Your task to perform on an android device: turn pop-ups on in chrome Image 0: 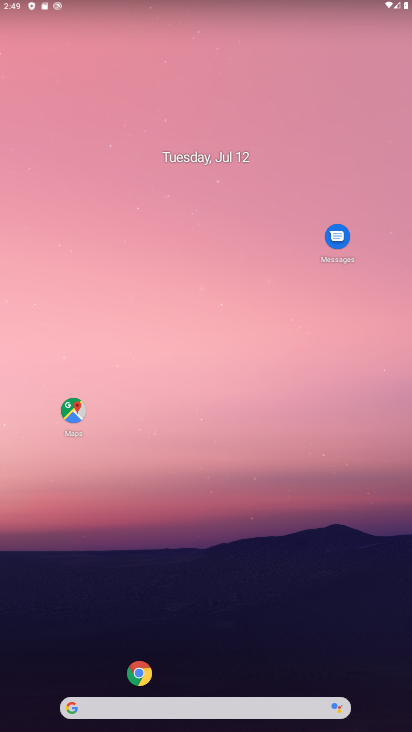
Step 0: drag from (39, 702) to (216, 172)
Your task to perform on an android device: turn pop-ups on in chrome Image 1: 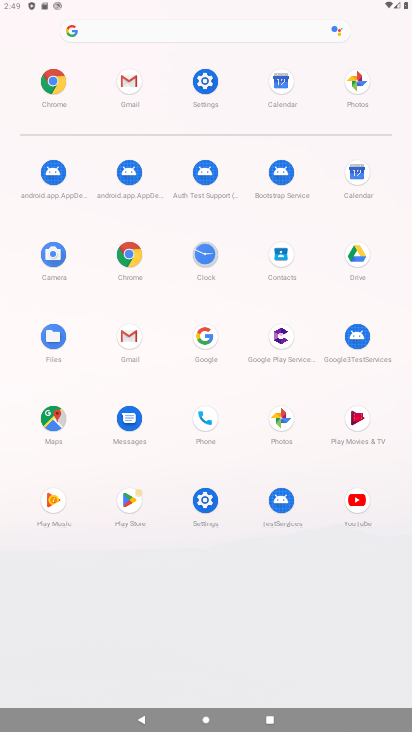
Step 1: click (196, 500)
Your task to perform on an android device: turn pop-ups on in chrome Image 2: 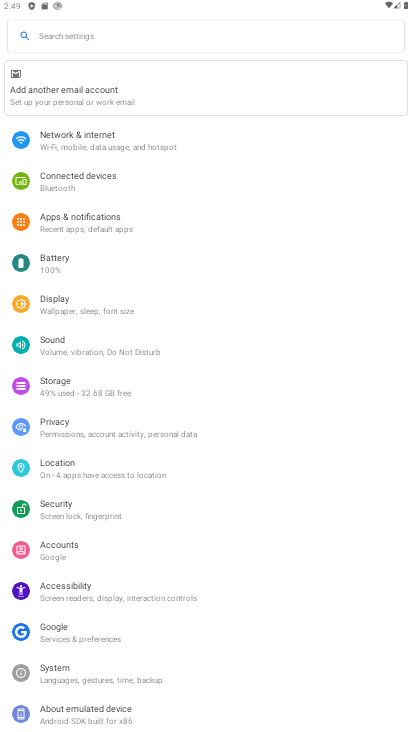
Step 2: press home button
Your task to perform on an android device: turn pop-ups on in chrome Image 3: 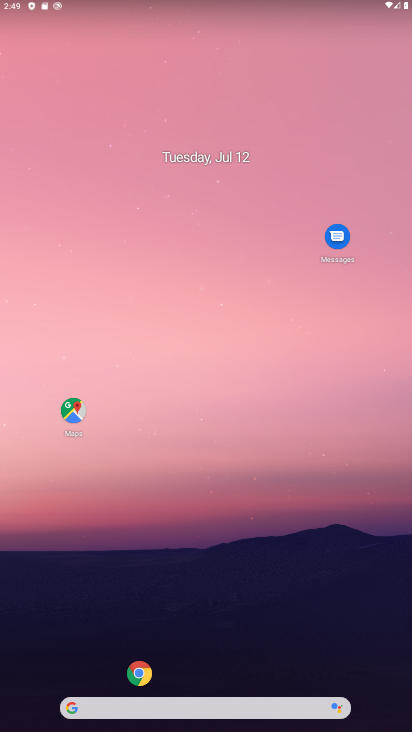
Step 3: click (144, 671)
Your task to perform on an android device: turn pop-ups on in chrome Image 4: 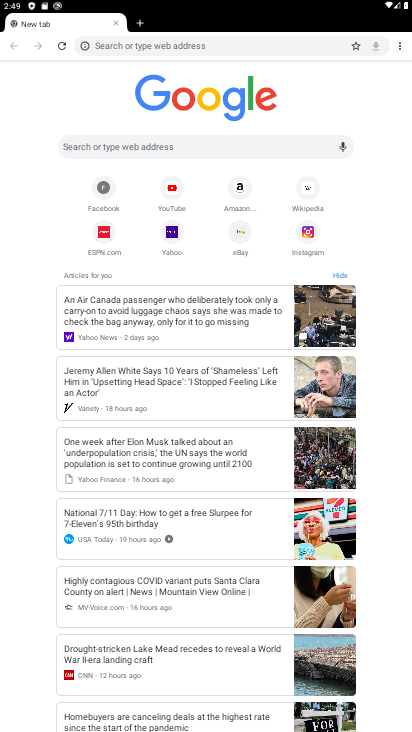
Step 4: click (395, 42)
Your task to perform on an android device: turn pop-ups on in chrome Image 5: 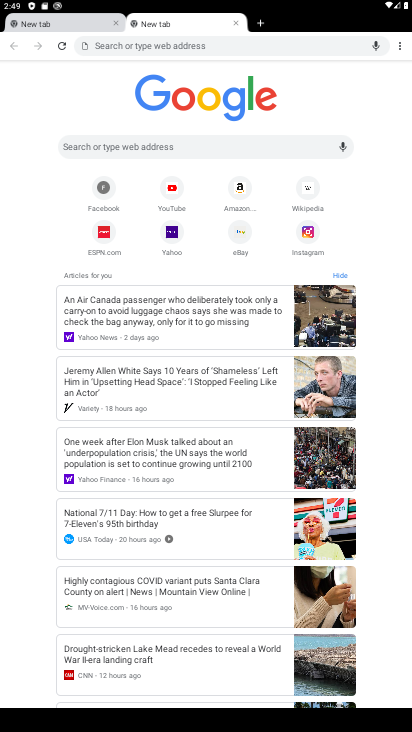
Step 5: click (397, 40)
Your task to perform on an android device: turn pop-ups on in chrome Image 6: 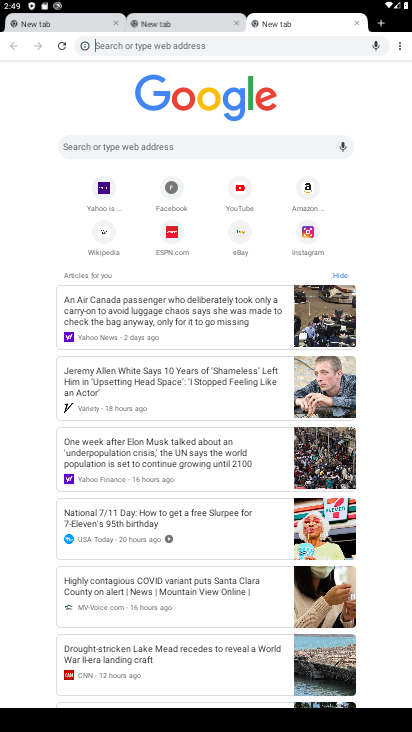
Step 6: task complete